Your task to perform on an android device: add a contact in the contacts app Image 0: 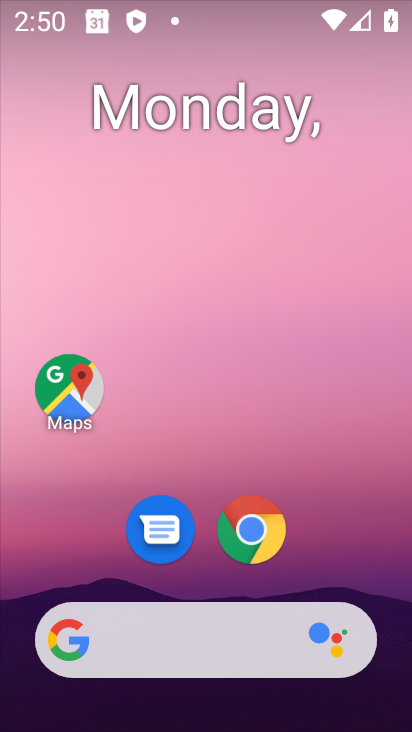
Step 0: drag from (344, 569) to (202, 149)
Your task to perform on an android device: add a contact in the contacts app Image 1: 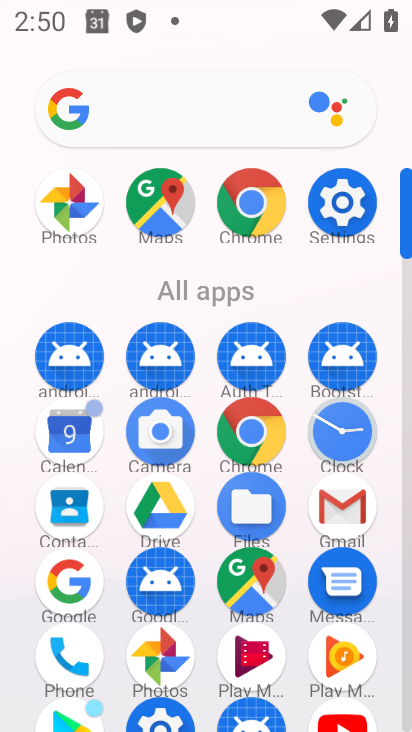
Step 1: click (74, 490)
Your task to perform on an android device: add a contact in the contacts app Image 2: 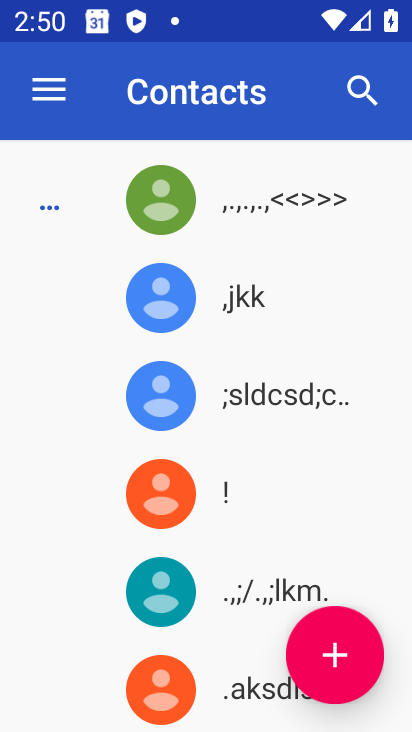
Step 2: click (371, 681)
Your task to perform on an android device: add a contact in the contacts app Image 3: 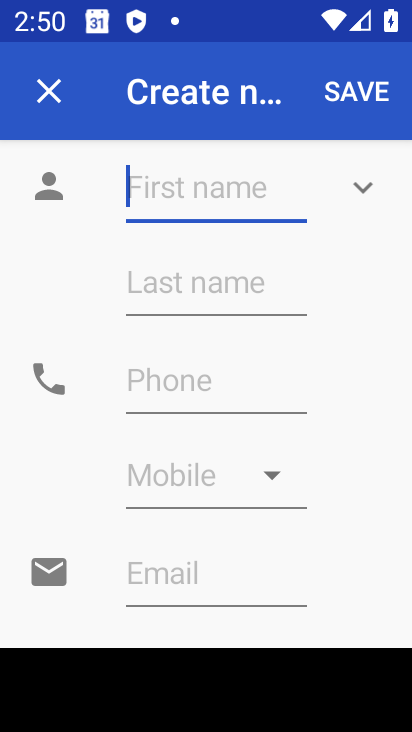
Step 3: click (231, 193)
Your task to perform on an android device: add a contact in the contacts app Image 4: 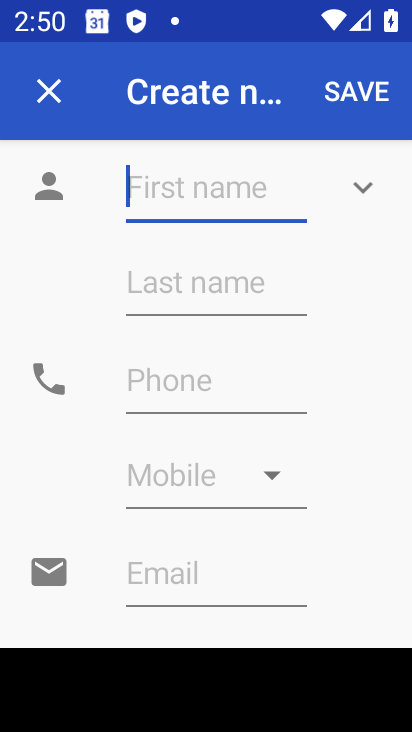
Step 4: type "kjkkj"
Your task to perform on an android device: add a contact in the contacts app Image 5: 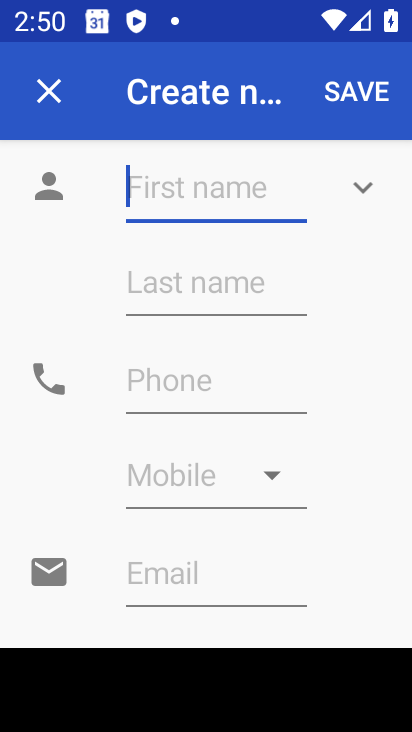
Step 5: click (274, 371)
Your task to perform on an android device: add a contact in the contacts app Image 6: 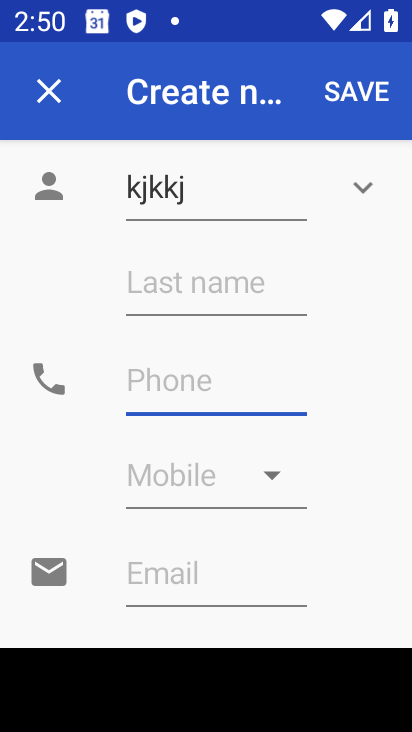
Step 6: type "687687"
Your task to perform on an android device: add a contact in the contacts app Image 7: 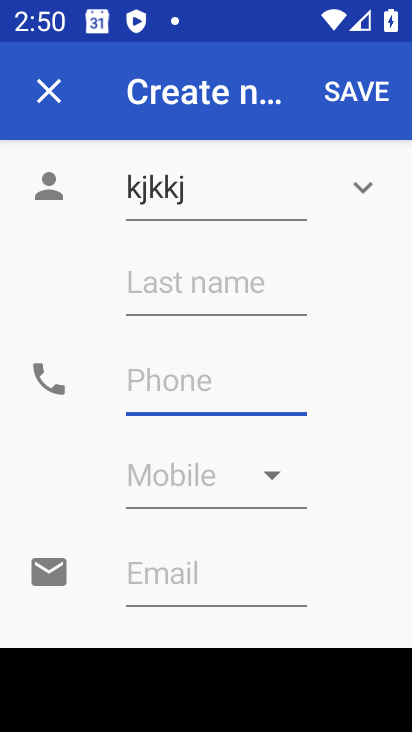
Step 7: click (392, 412)
Your task to perform on an android device: add a contact in the contacts app Image 8: 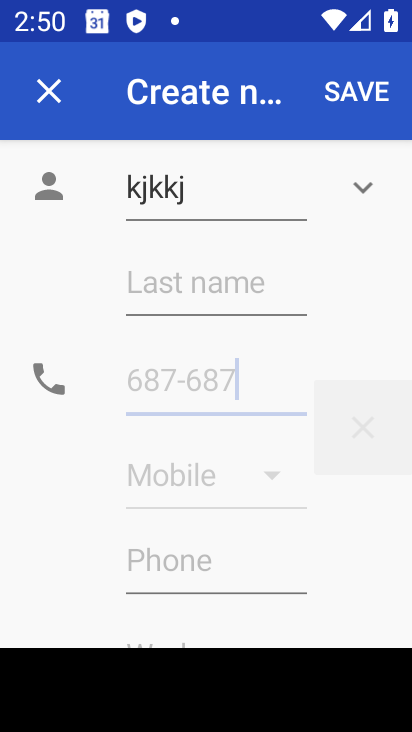
Step 8: click (367, 86)
Your task to perform on an android device: add a contact in the contacts app Image 9: 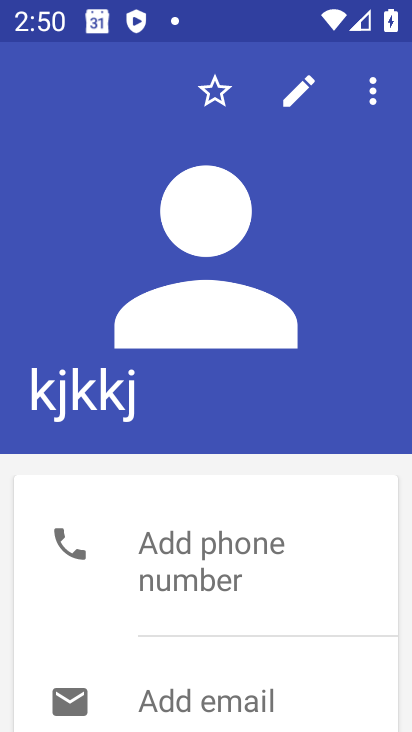
Step 9: task complete